Your task to perform on an android device: toggle javascript in the chrome app Image 0: 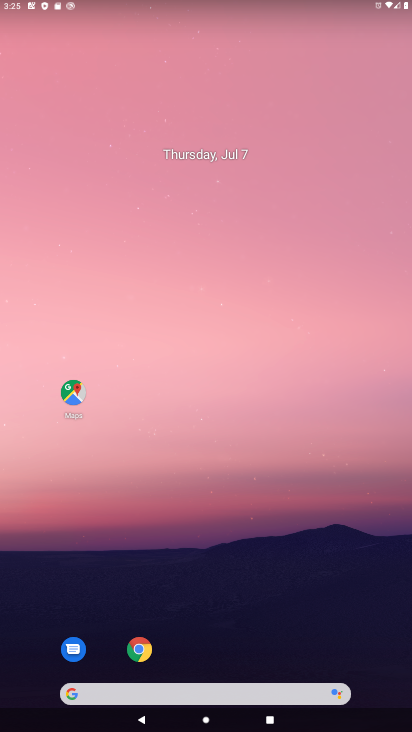
Step 0: drag from (220, 656) to (289, 1)
Your task to perform on an android device: toggle javascript in the chrome app Image 1: 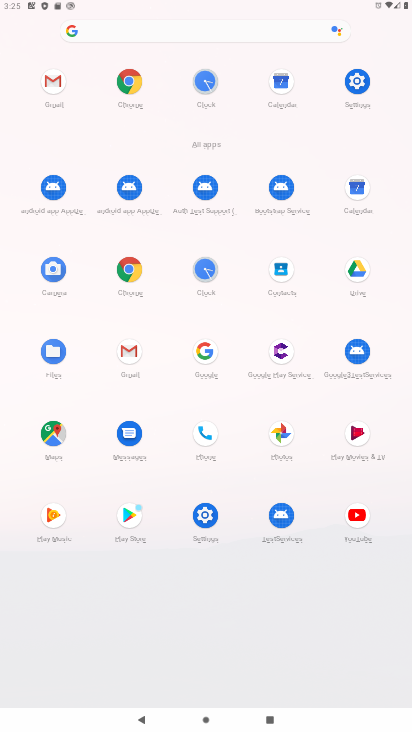
Step 1: click (128, 274)
Your task to perform on an android device: toggle javascript in the chrome app Image 2: 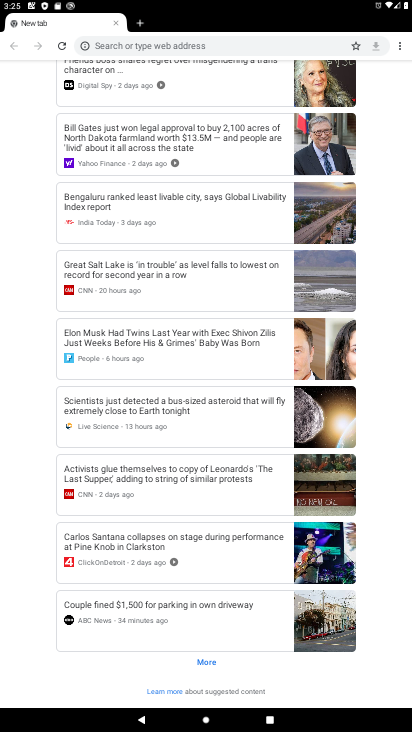
Step 2: click (141, 28)
Your task to perform on an android device: toggle javascript in the chrome app Image 3: 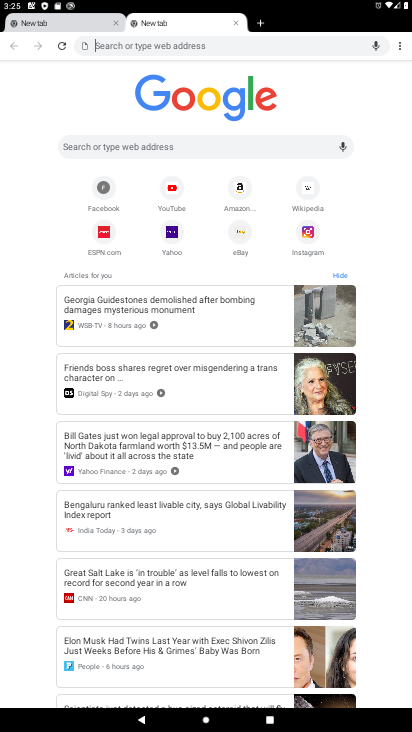
Step 3: click (392, 48)
Your task to perform on an android device: toggle javascript in the chrome app Image 4: 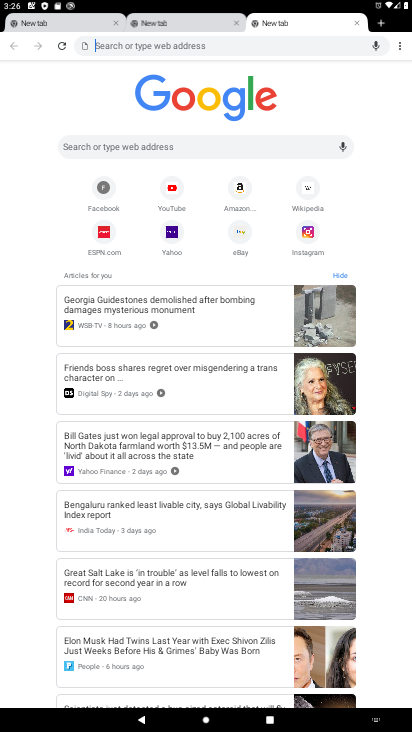
Step 4: drag from (398, 51) to (328, 208)
Your task to perform on an android device: toggle javascript in the chrome app Image 5: 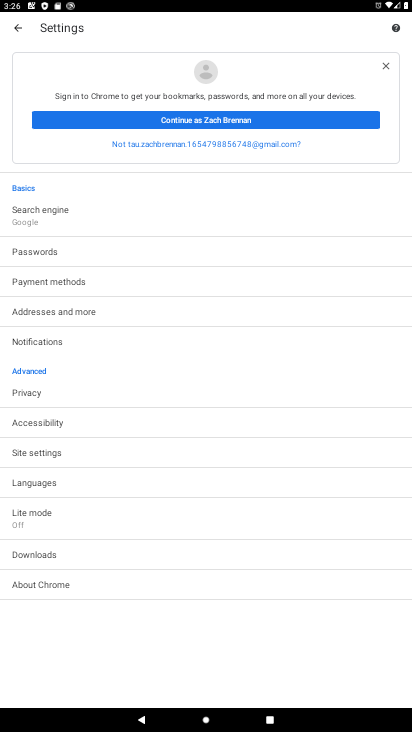
Step 5: click (38, 454)
Your task to perform on an android device: toggle javascript in the chrome app Image 6: 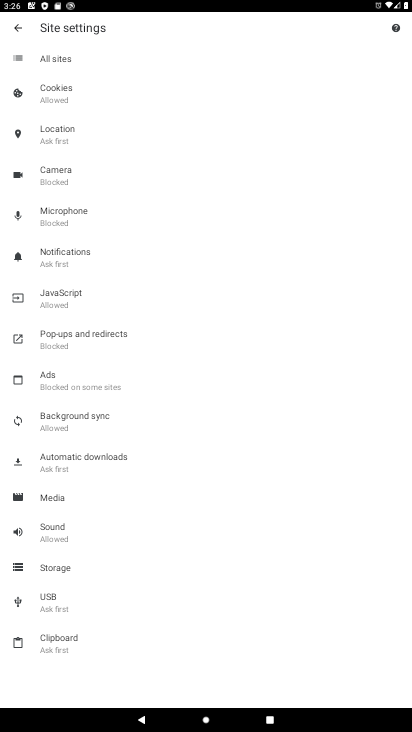
Step 6: click (75, 299)
Your task to perform on an android device: toggle javascript in the chrome app Image 7: 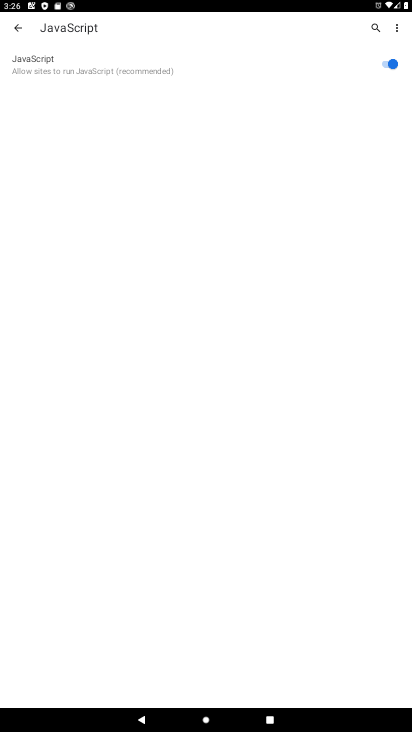
Step 7: drag from (253, 534) to (274, 161)
Your task to perform on an android device: toggle javascript in the chrome app Image 8: 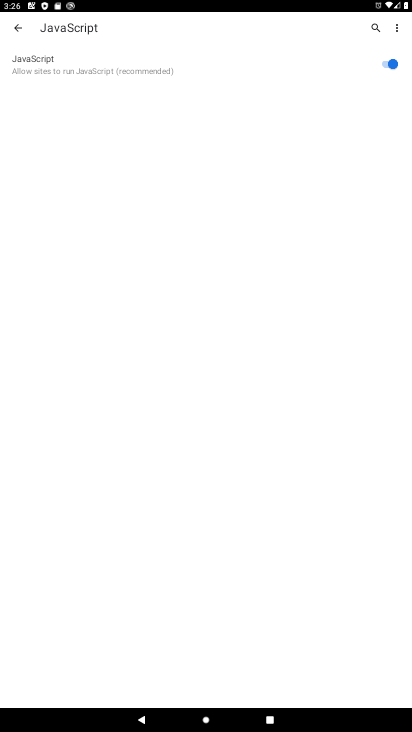
Step 8: click (386, 63)
Your task to perform on an android device: toggle javascript in the chrome app Image 9: 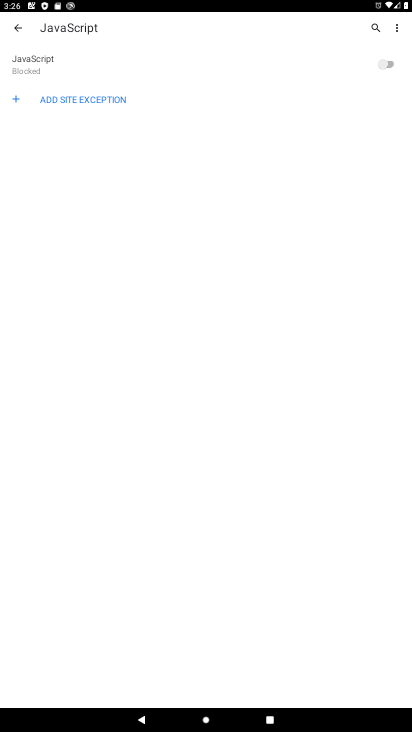
Step 9: task complete